Your task to perform on an android device: turn notification dots on Image 0: 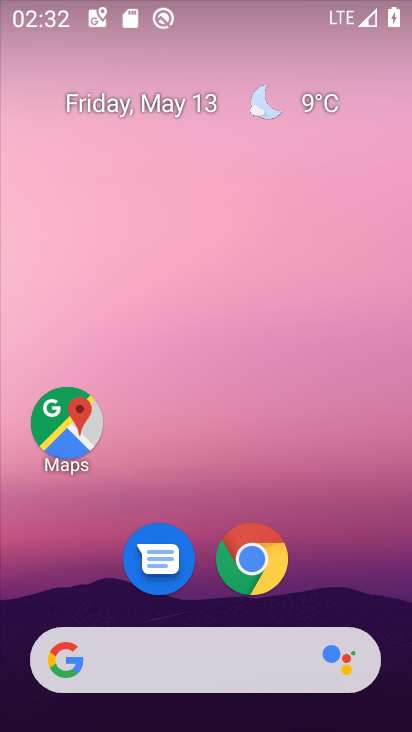
Step 0: drag from (389, 612) to (369, 188)
Your task to perform on an android device: turn notification dots on Image 1: 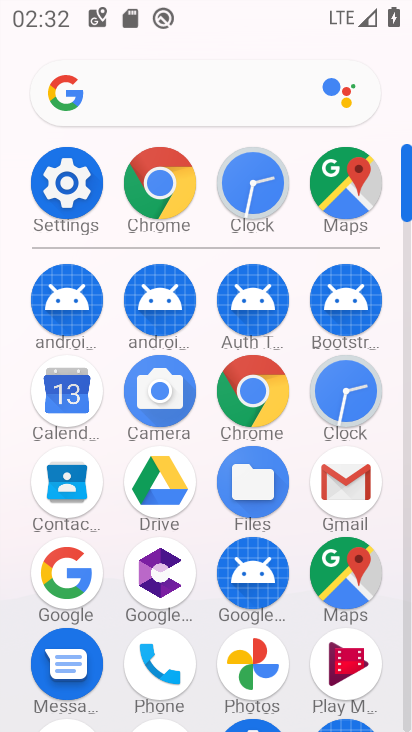
Step 1: click (70, 175)
Your task to perform on an android device: turn notification dots on Image 2: 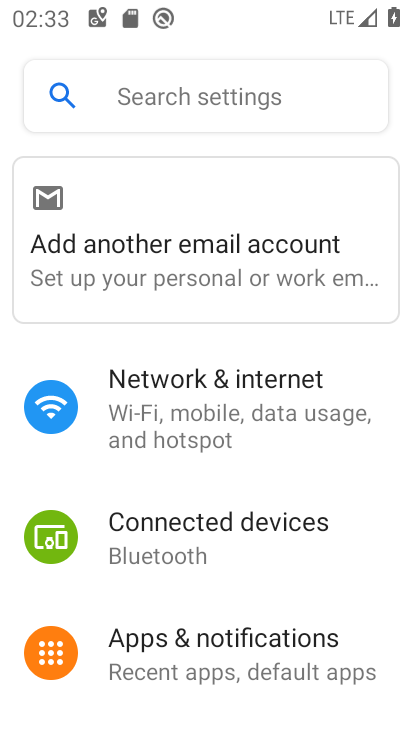
Step 2: click (263, 646)
Your task to perform on an android device: turn notification dots on Image 3: 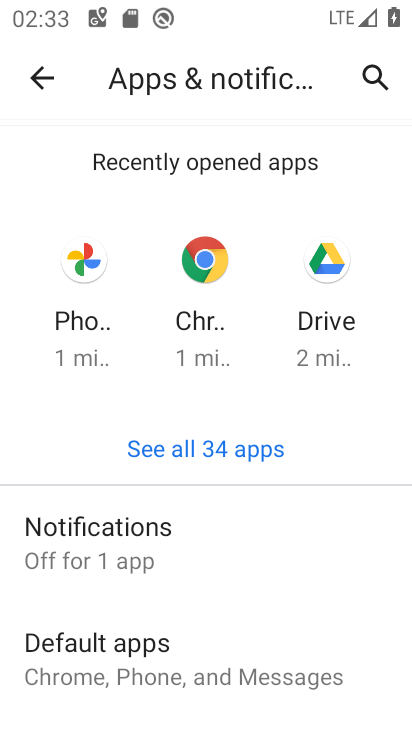
Step 3: click (70, 534)
Your task to perform on an android device: turn notification dots on Image 4: 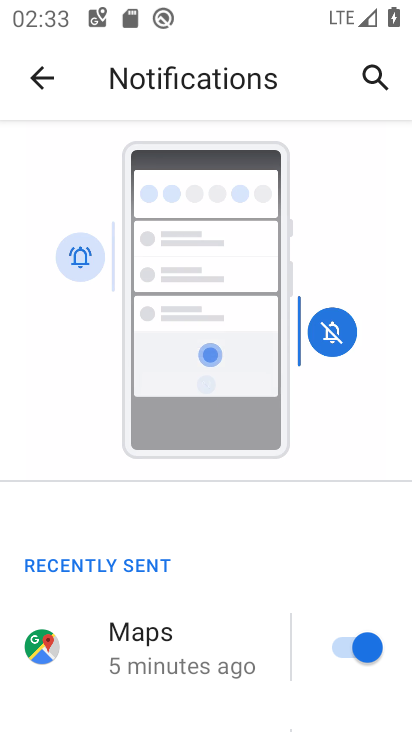
Step 4: drag from (275, 681) to (269, 348)
Your task to perform on an android device: turn notification dots on Image 5: 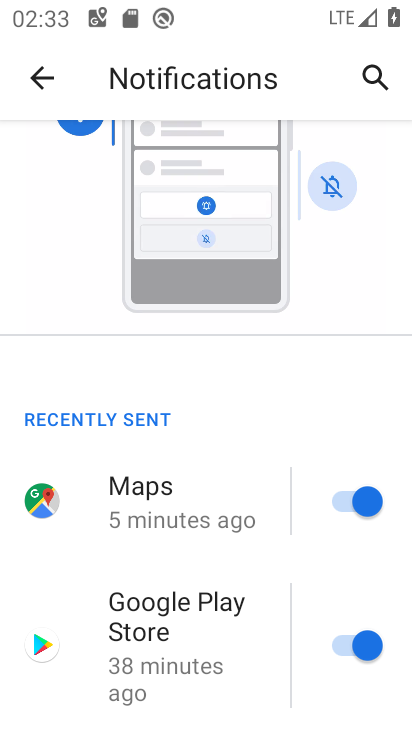
Step 5: drag from (258, 699) to (250, 304)
Your task to perform on an android device: turn notification dots on Image 6: 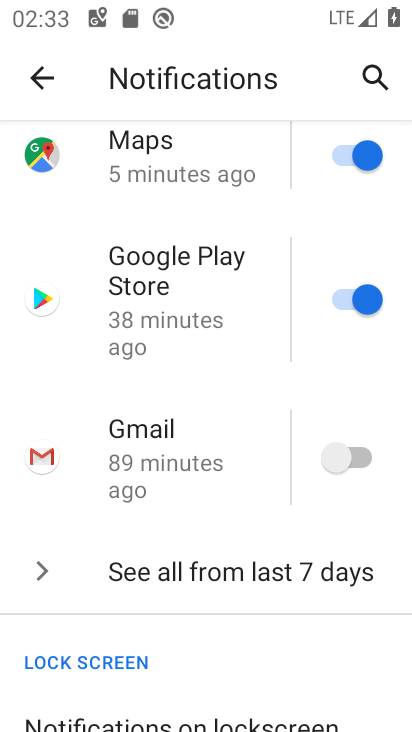
Step 6: drag from (238, 649) to (227, 303)
Your task to perform on an android device: turn notification dots on Image 7: 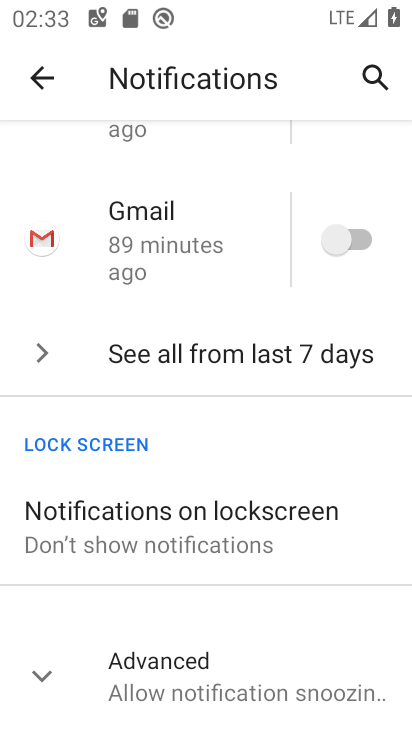
Step 7: click (97, 518)
Your task to perform on an android device: turn notification dots on Image 8: 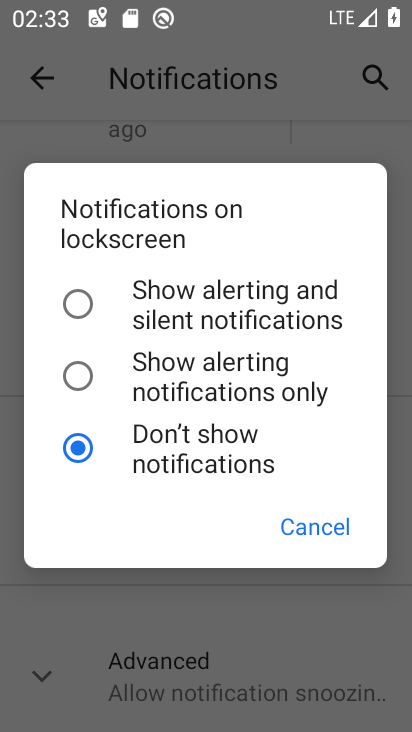
Step 8: click (214, 627)
Your task to perform on an android device: turn notification dots on Image 9: 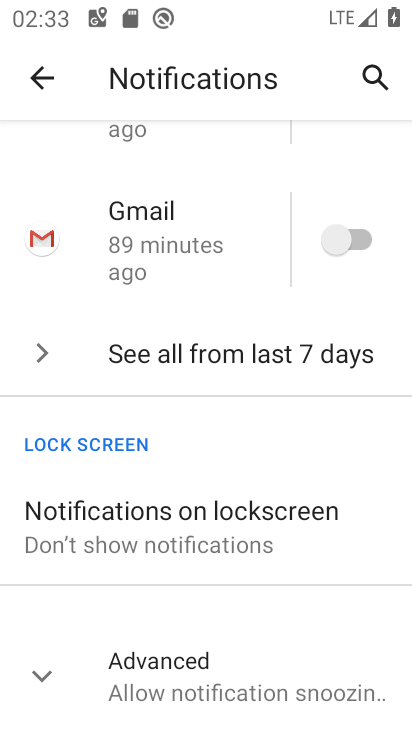
Step 9: drag from (231, 660) to (253, 298)
Your task to perform on an android device: turn notification dots on Image 10: 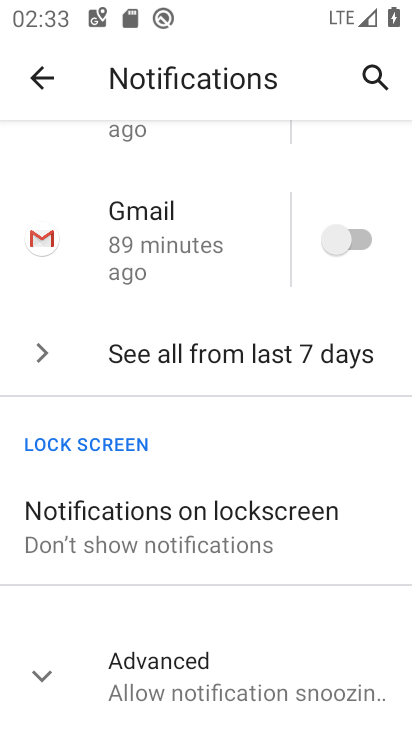
Step 10: click (46, 668)
Your task to perform on an android device: turn notification dots on Image 11: 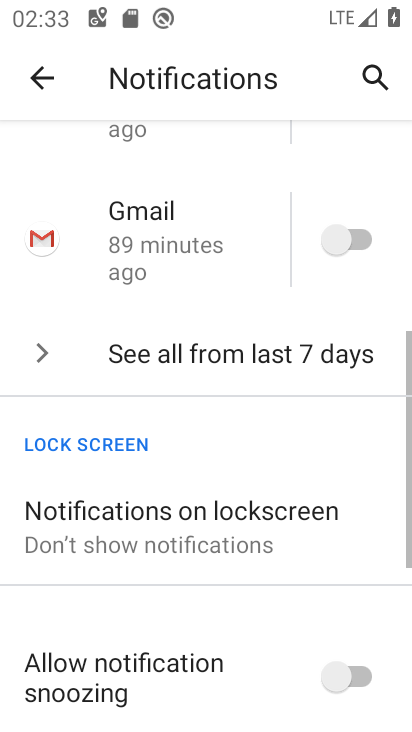
Step 11: task complete